Your task to perform on an android device: find photos in the google photos app Image 0: 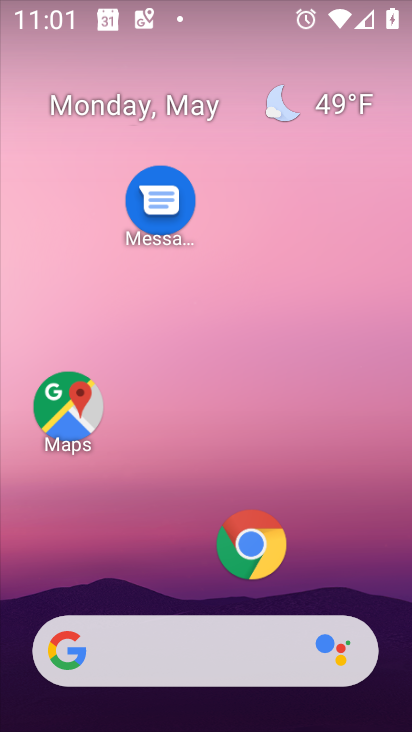
Step 0: drag from (150, 587) to (262, 93)
Your task to perform on an android device: find photos in the google photos app Image 1: 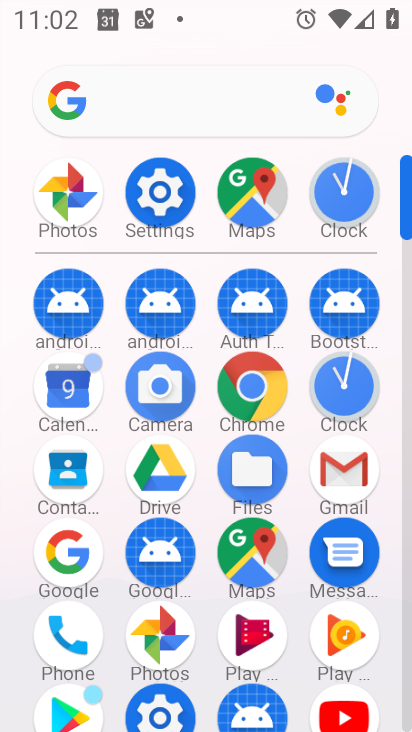
Step 1: click (170, 625)
Your task to perform on an android device: find photos in the google photos app Image 2: 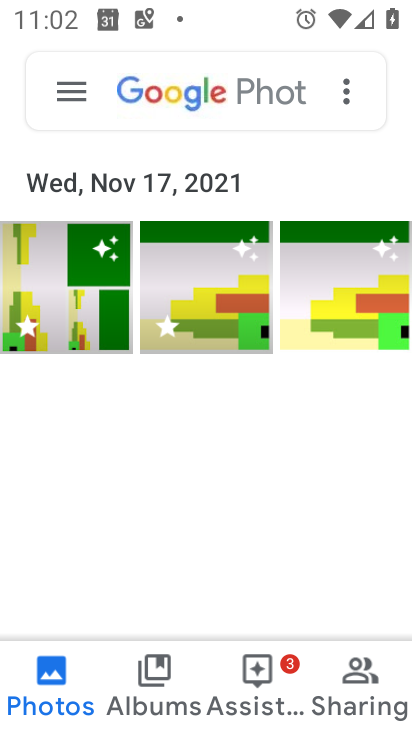
Step 2: task complete